Your task to perform on an android device: Search for seafood restaurants on Google Maps Image 0: 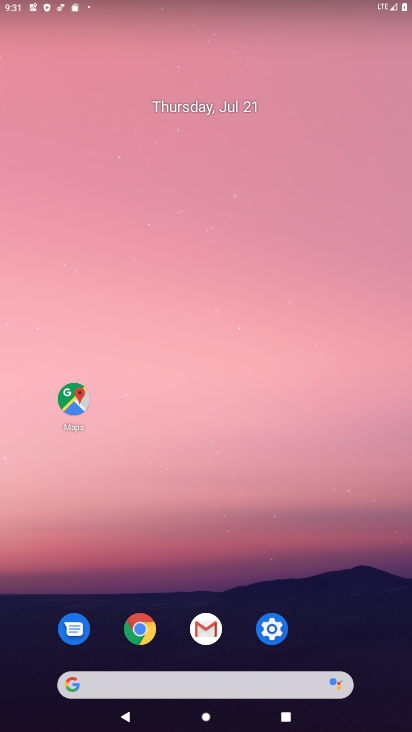
Step 0: click (60, 397)
Your task to perform on an android device: Search for seafood restaurants on Google Maps Image 1: 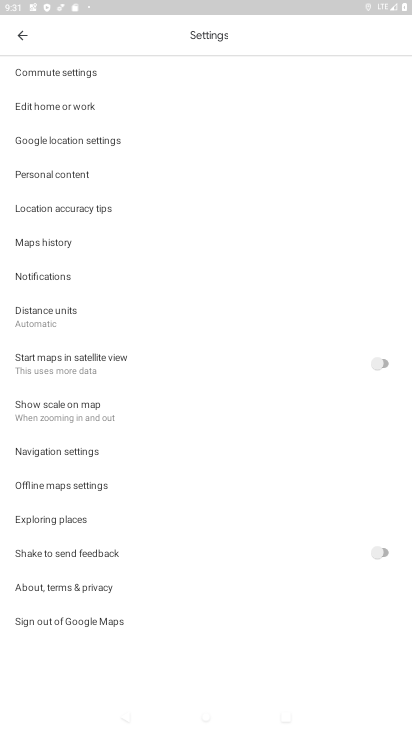
Step 1: click (14, 42)
Your task to perform on an android device: Search for seafood restaurants on Google Maps Image 2: 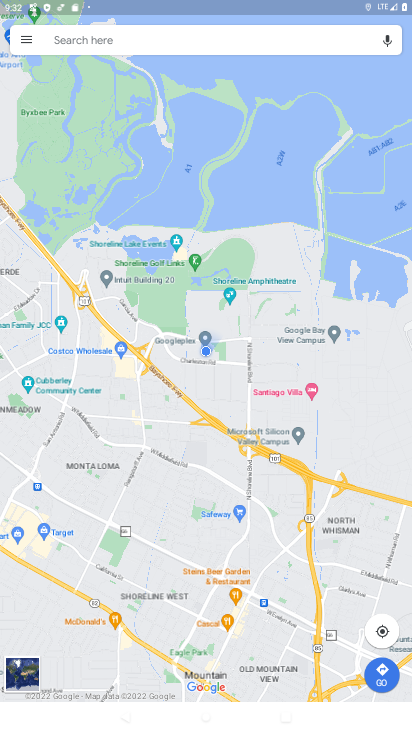
Step 2: click (71, 32)
Your task to perform on an android device: Search for seafood restaurants on Google Maps Image 3: 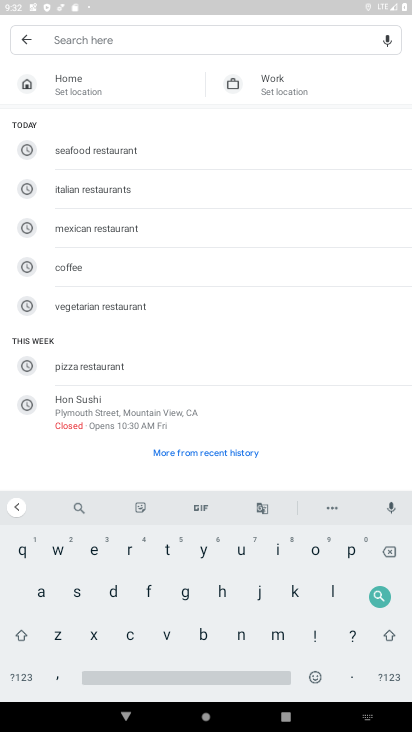
Step 3: click (119, 155)
Your task to perform on an android device: Search for seafood restaurants on Google Maps Image 4: 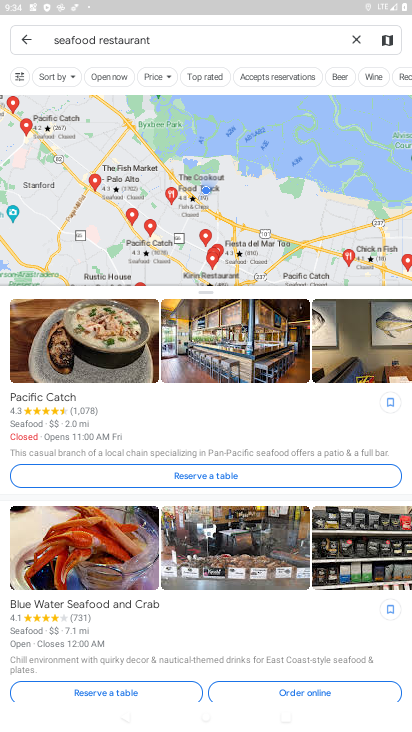
Step 4: task complete